Your task to perform on an android device: empty trash in the gmail app Image 0: 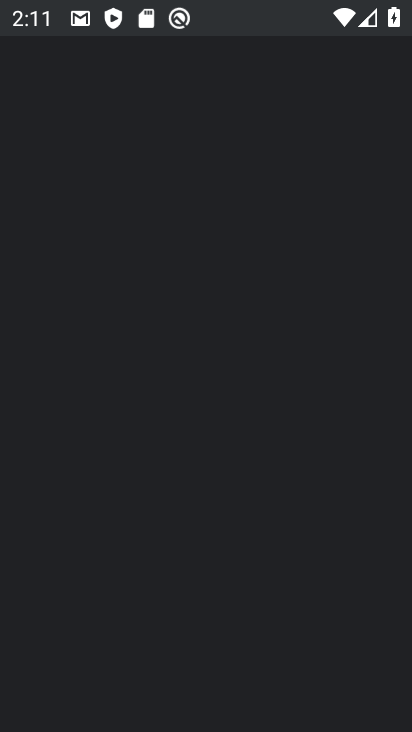
Step 0: press home button
Your task to perform on an android device: empty trash in the gmail app Image 1: 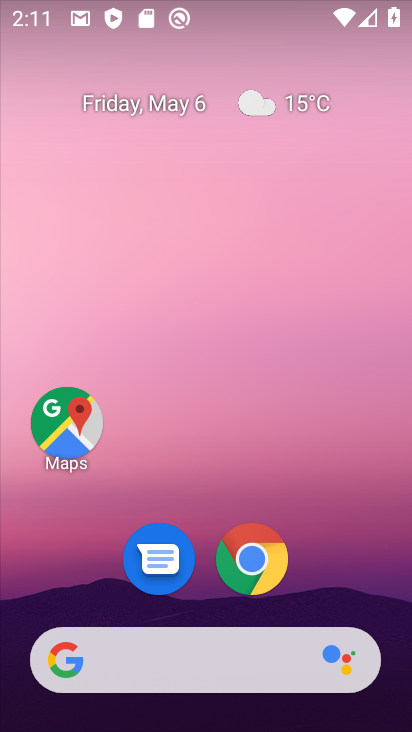
Step 1: drag from (209, 598) to (235, 55)
Your task to perform on an android device: empty trash in the gmail app Image 2: 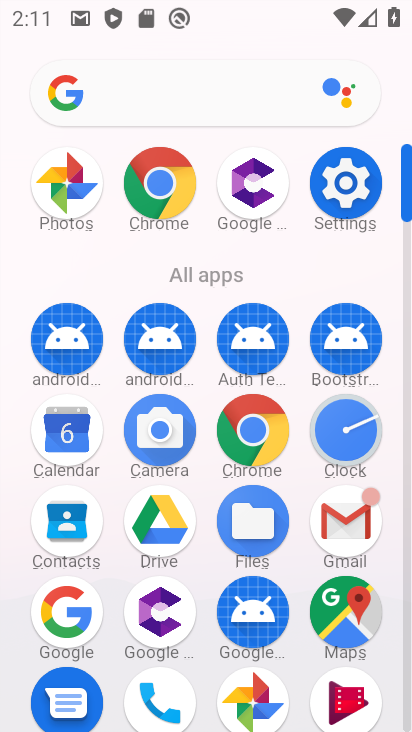
Step 2: click (342, 513)
Your task to perform on an android device: empty trash in the gmail app Image 3: 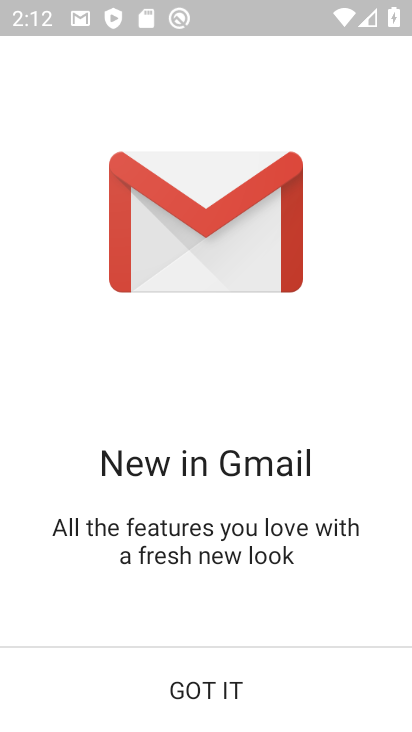
Step 3: click (217, 701)
Your task to perform on an android device: empty trash in the gmail app Image 4: 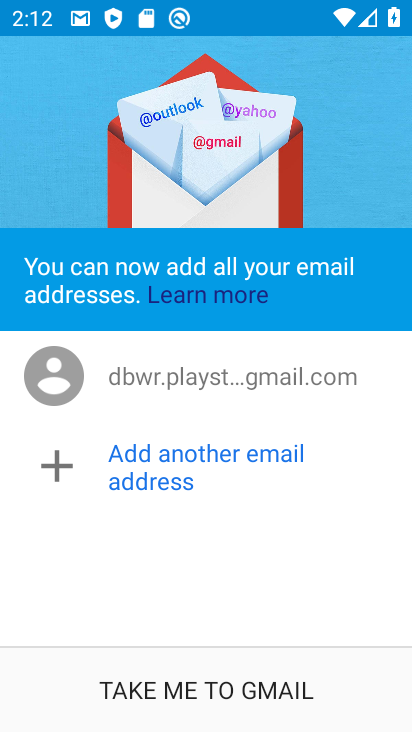
Step 4: click (195, 705)
Your task to perform on an android device: empty trash in the gmail app Image 5: 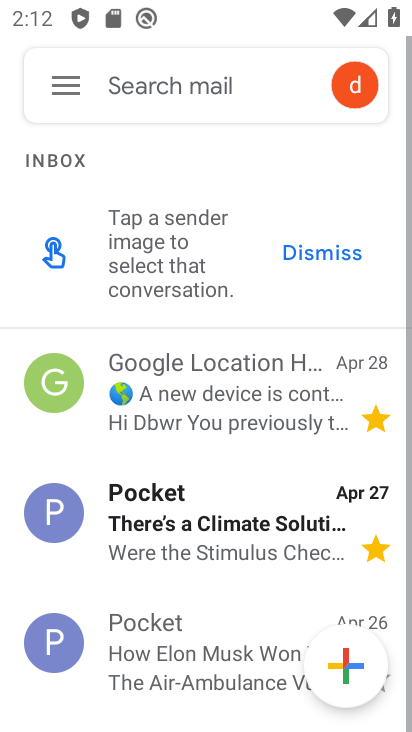
Step 5: click (69, 92)
Your task to perform on an android device: empty trash in the gmail app Image 6: 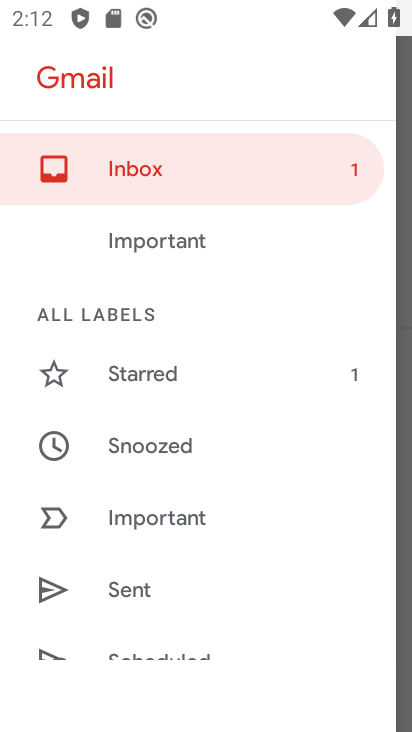
Step 6: drag from (164, 632) to (178, 64)
Your task to perform on an android device: empty trash in the gmail app Image 7: 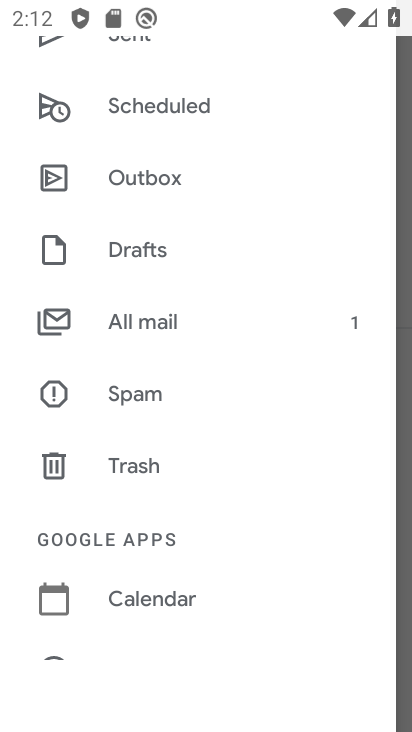
Step 7: click (164, 462)
Your task to perform on an android device: empty trash in the gmail app Image 8: 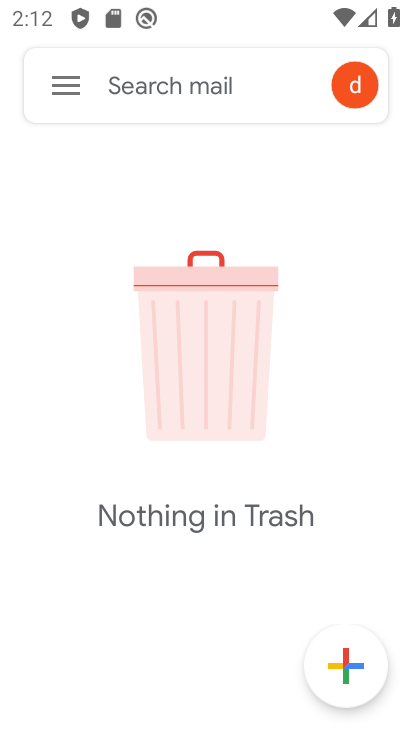
Step 8: task complete